Your task to perform on an android device: turn smart compose on in the gmail app Image 0: 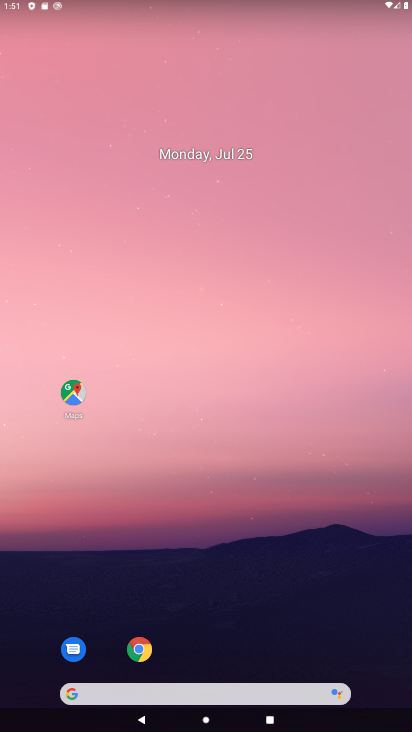
Step 0: drag from (387, 666) to (308, 142)
Your task to perform on an android device: turn smart compose on in the gmail app Image 1: 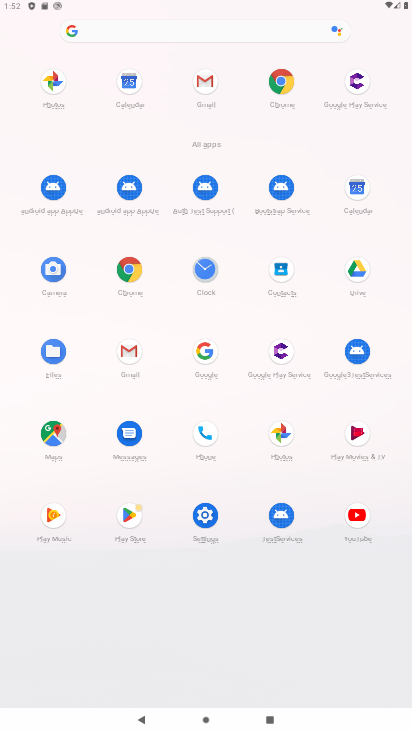
Step 1: click (128, 351)
Your task to perform on an android device: turn smart compose on in the gmail app Image 2: 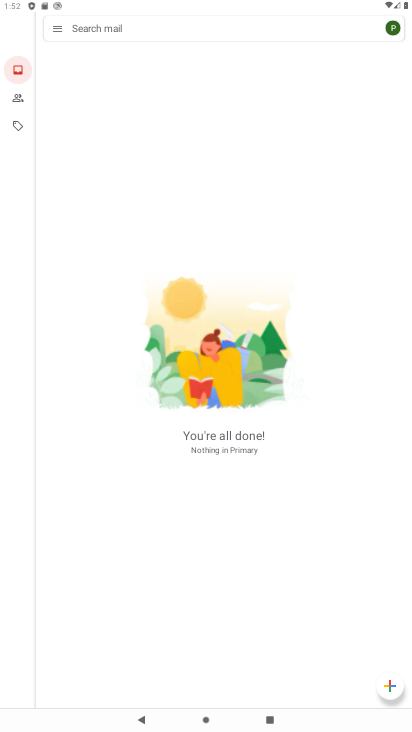
Step 2: click (57, 32)
Your task to perform on an android device: turn smart compose on in the gmail app Image 3: 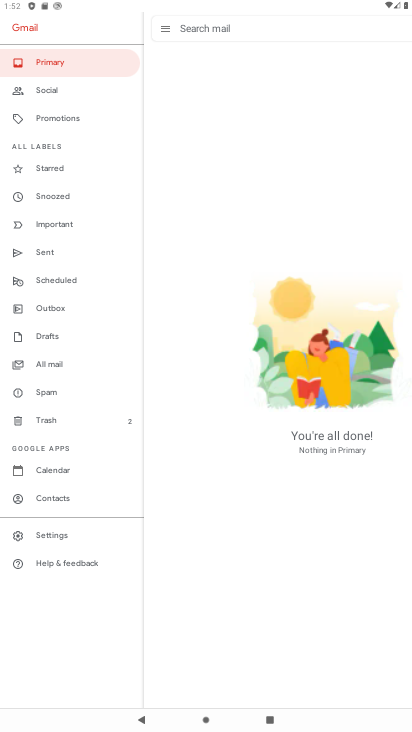
Step 3: click (46, 529)
Your task to perform on an android device: turn smart compose on in the gmail app Image 4: 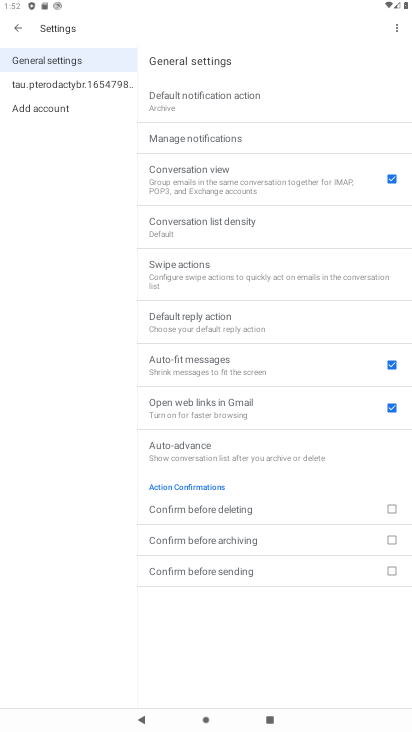
Step 4: click (73, 90)
Your task to perform on an android device: turn smart compose on in the gmail app Image 5: 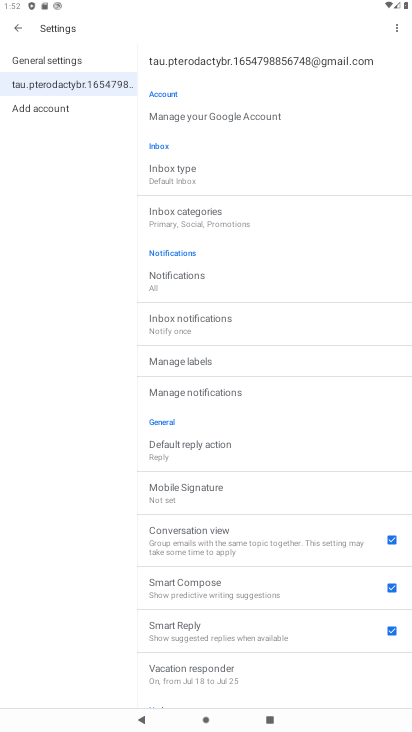
Step 5: task complete